Your task to perform on an android device: search for starred emails in the gmail app Image 0: 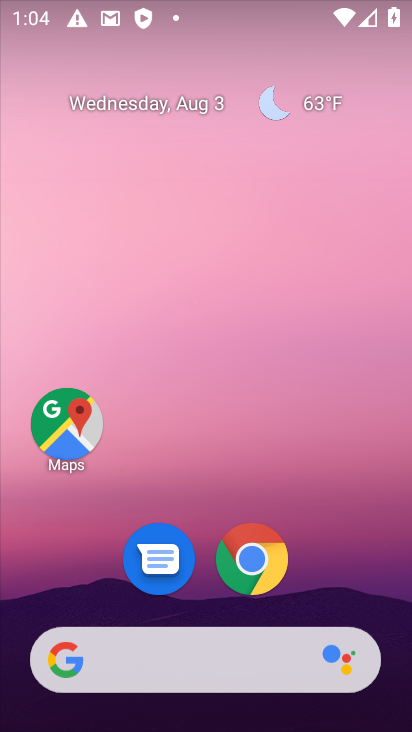
Step 0: press home button
Your task to perform on an android device: search for starred emails in the gmail app Image 1: 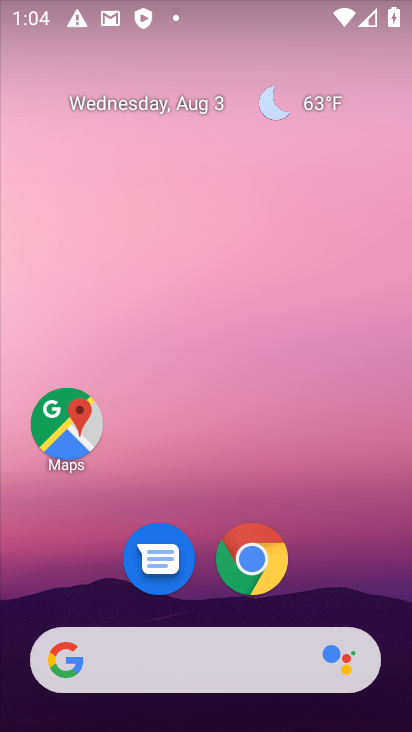
Step 1: drag from (294, 683) to (305, 0)
Your task to perform on an android device: search for starred emails in the gmail app Image 2: 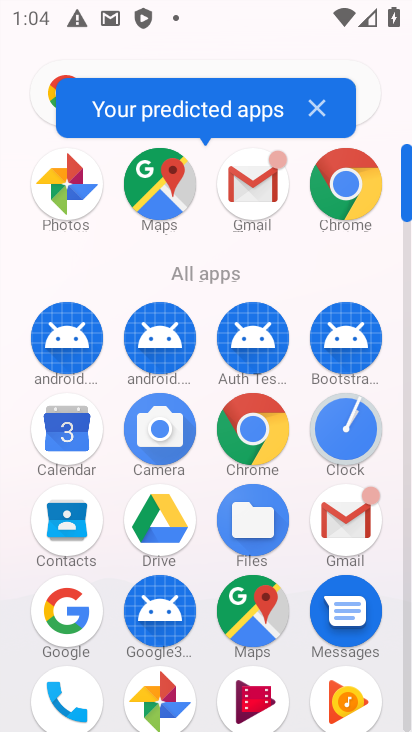
Step 2: drag from (332, 516) to (336, 572)
Your task to perform on an android device: search for starred emails in the gmail app Image 3: 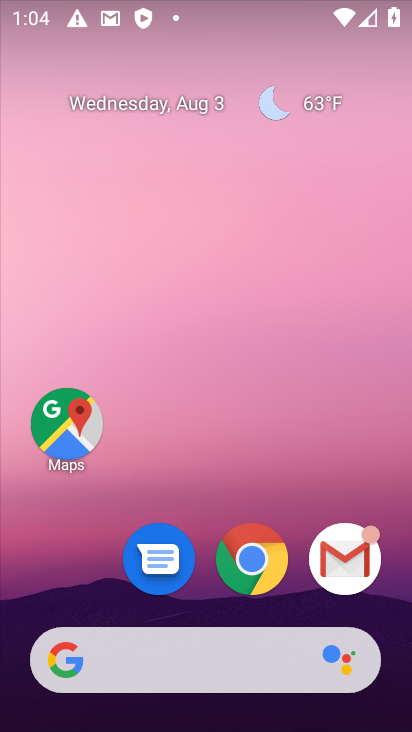
Step 3: click (353, 565)
Your task to perform on an android device: search for starred emails in the gmail app Image 4: 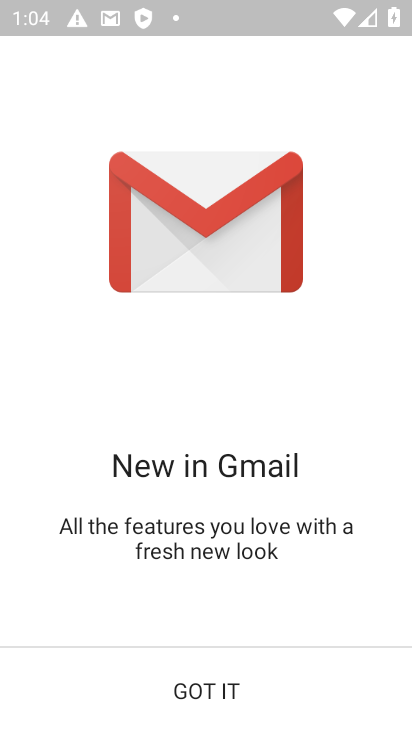
Step 4: click (187, 683)
Your task to perform on an android device: search for starred emails in the gmail app Image 5: 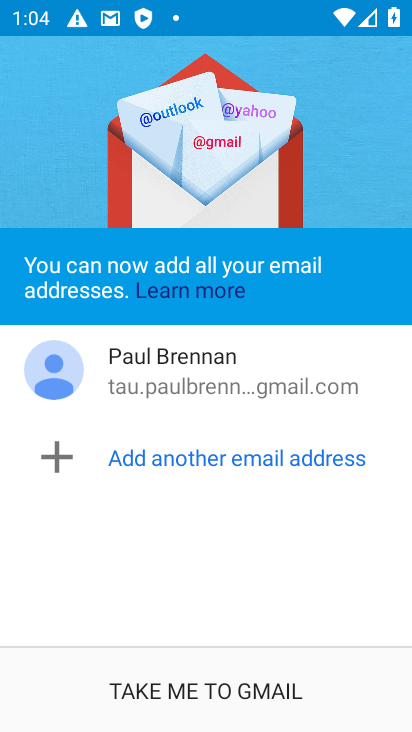
Step 5: click (186, 682)
Your task to perform on an android device: search for starred emails in the gmail app Image 6: 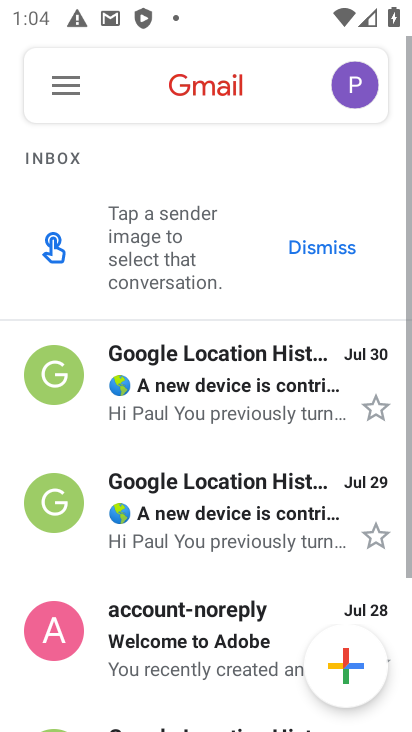
Step 6: click (72, 81)
Your task to perform on an android device: search for starred emails in the gmail app Image 7: 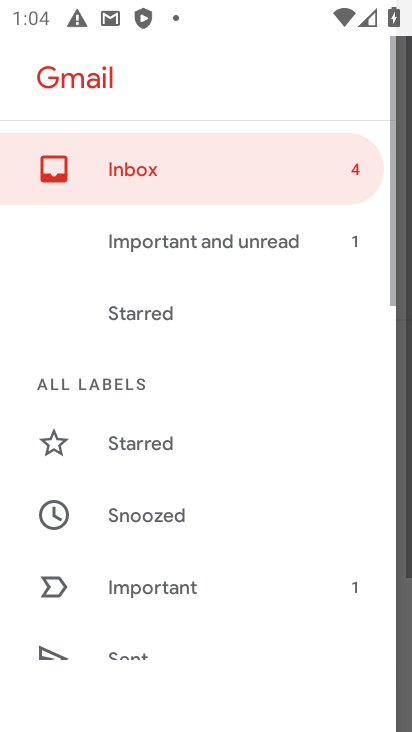
Step 7: drag from (127, 183) to (209, 504)
Your task to perform on an android device: search for starred emails in the gmail app Image 8: 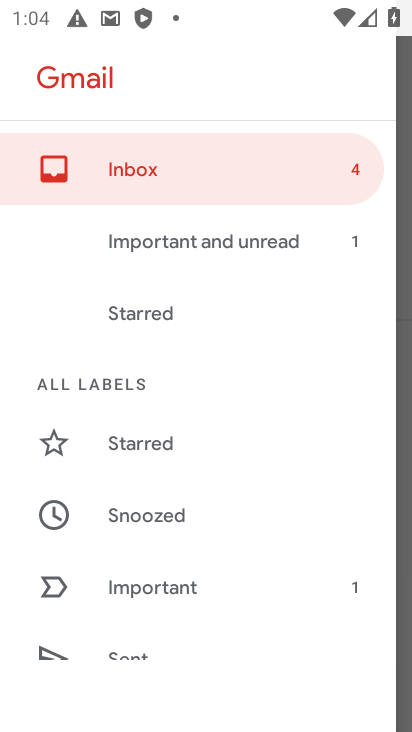
Step 8: drag from (136, 209) to (183, 486)
Your task to perform on an android device: search for starred emails in the gmail app Image 9: 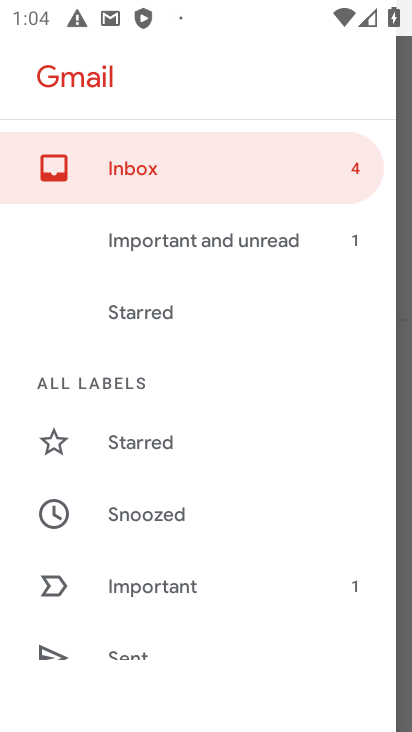
Step 9: click (167, 437)
Your task to perform on an android device: search for starred emails in the gmail app Image 10: 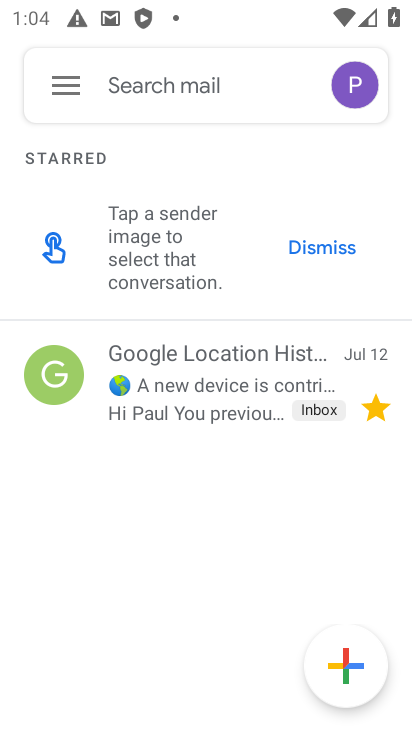
Step 10: click (306, 247)
Your task to perform on an android device: search for starred emails in the gmail app Image 11: 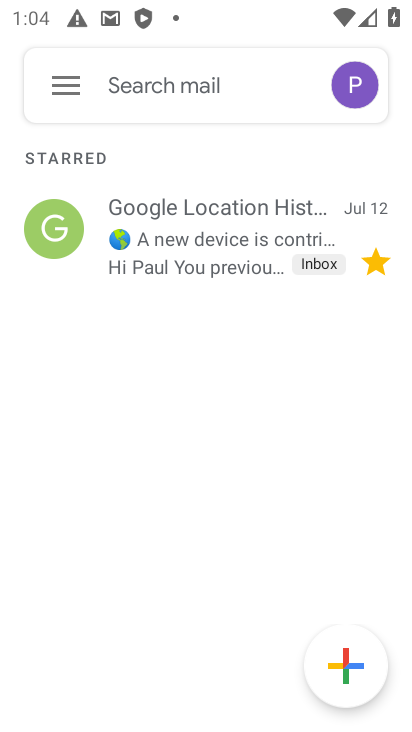
Step 11: click (50, 84)
Your task to perform on an android device: search for starred emails in the gmail app Image 12: 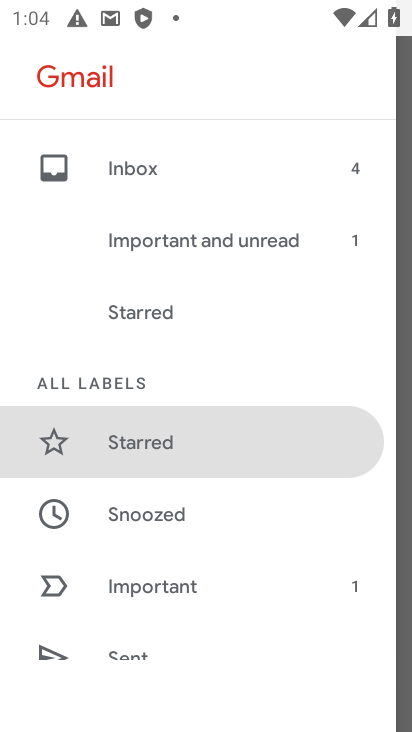
Step 12: click (147, 318)
Your task to perform on an android device: search for starred emails in the gmail app Image 13: 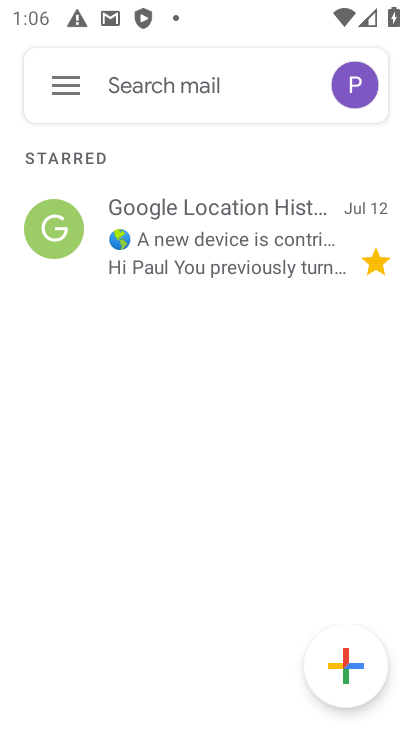
Step 13: task complete